Your task to perform on an android device: Open calendar and show me the third week of next month Image 0: 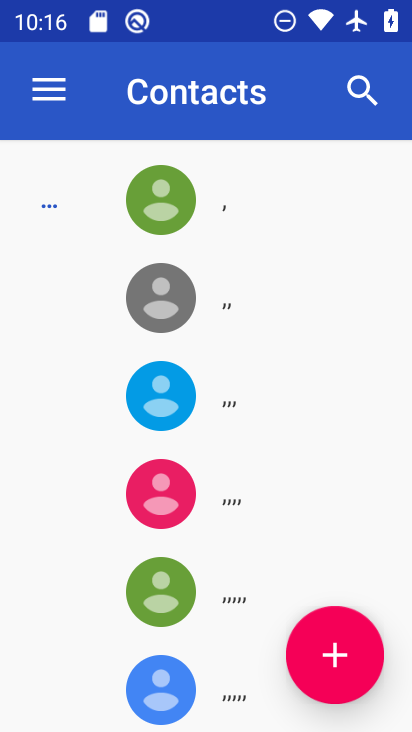
Step 0: press home button
Your task to perform on an android device: Open calendar and show me the third week of next month Image 1: 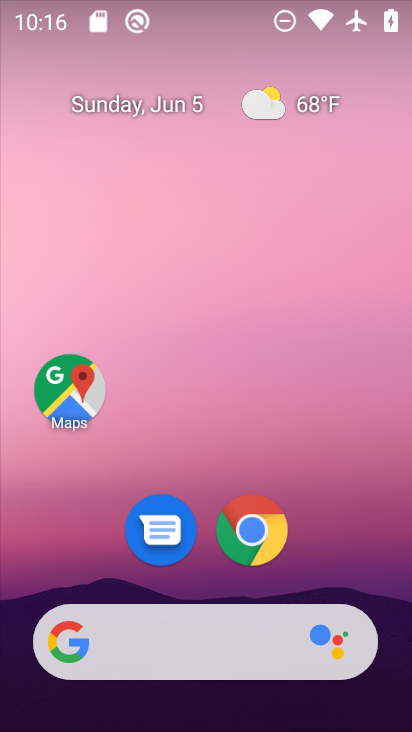
Step 1: drag from (407, 587) to (302, 67)
Your task to perform on an android device: Open calendar and show me the third week of next month Image 2: 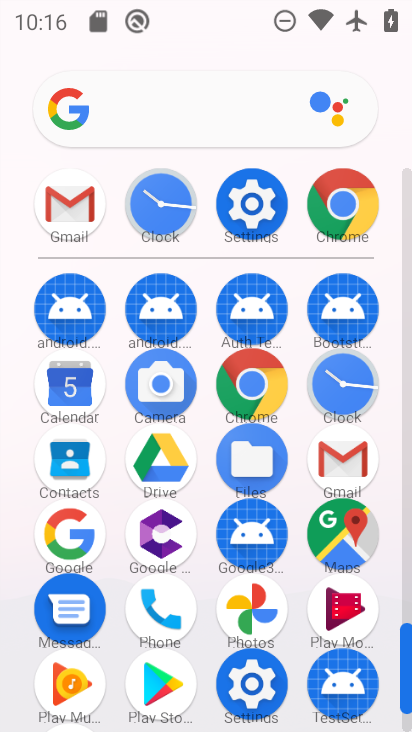
Step 2: click (72, 383)
Your task to perform on an android device: Open calendar and show me the third week of next month Image 3: 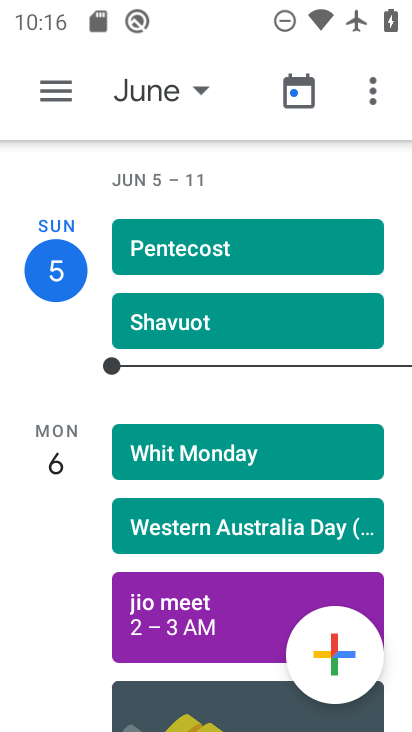
Step 3: click (66, 95)
Your task to perform on an android device: Open calendar and show me the third week of next month Image 4: 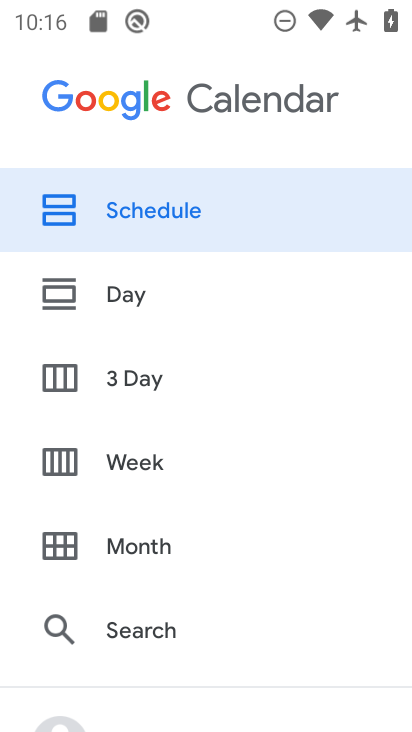
Step 4: click (151, 464)
Your task to perform on an android device: Open calendar and show me the third week of next month Image 5: 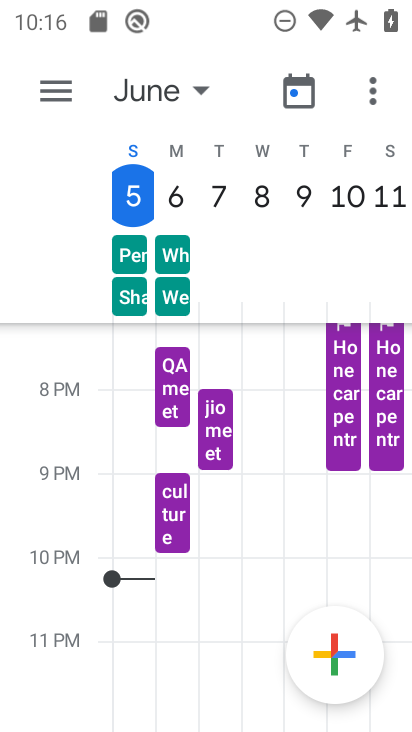
Step 5: click (198, 91)
Your task to perform on an android device: Open calendar and show me the third week of next month Image 6: 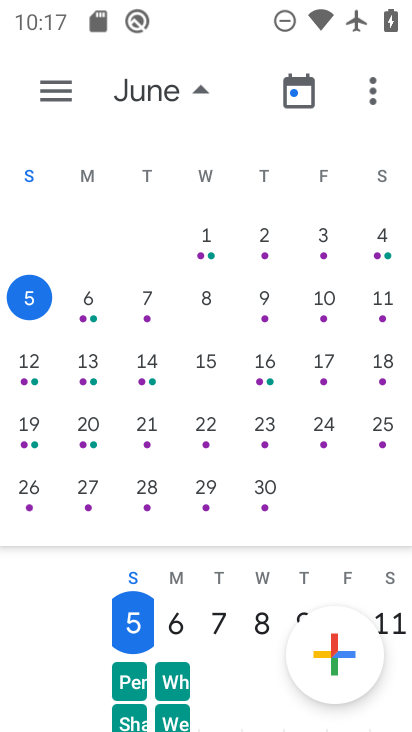
Step 6: drag from (380, 365) to (43, 401)
Your task to perform on an android device: Open calendar and show me the third week of next month Image 7: 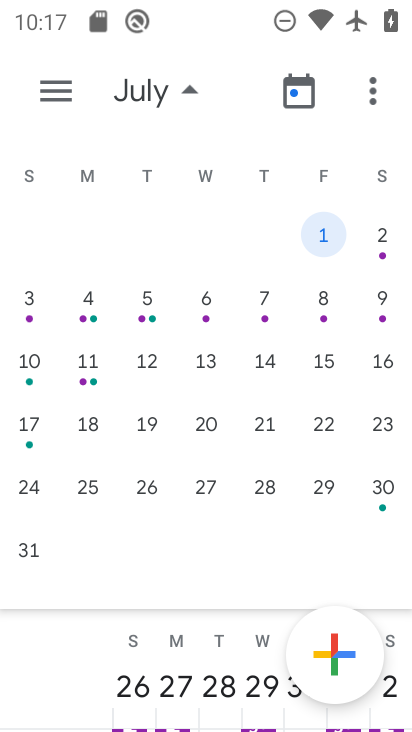
Step 7: click (20, 429)
Your task to perform on an android device: Open calendar and show me the third week of next month Image 8: 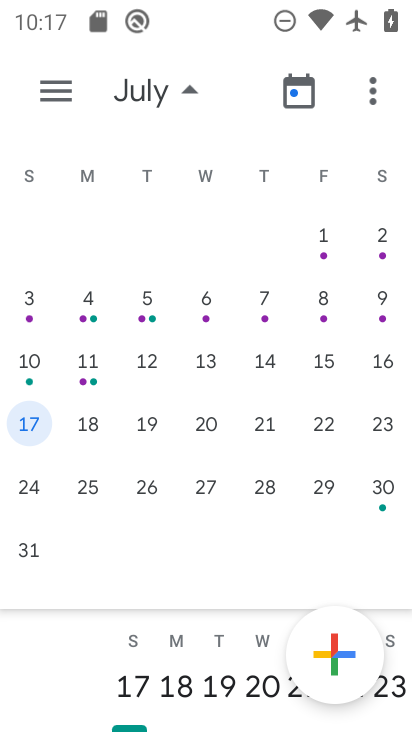
Step 8: task complete